Your task to perform on an android device: uninstall "Google Chat" Image 0: 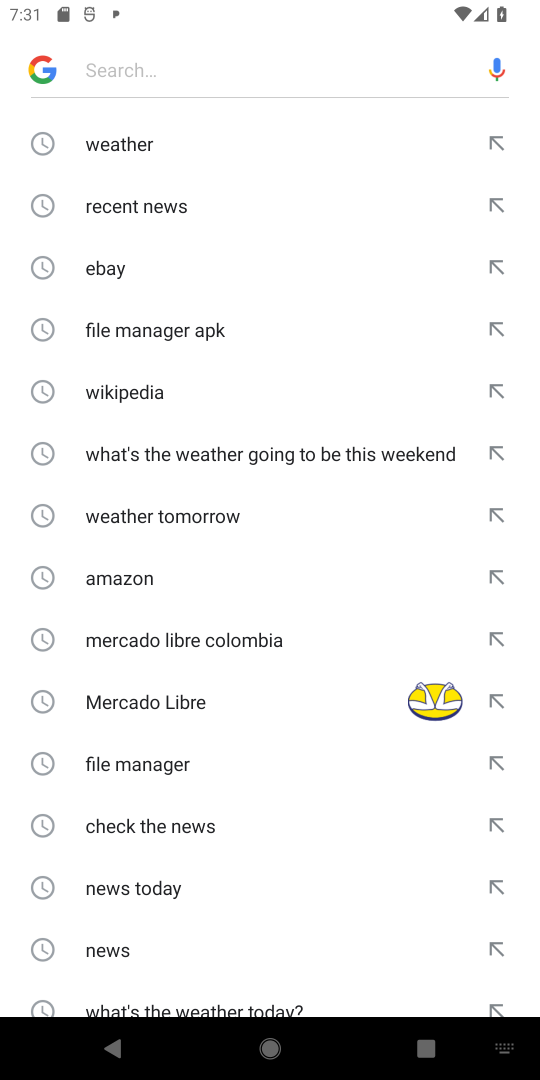
Step 0: press home button
Your task to perform on an android device: uninstall "Google Chat" Image 1: 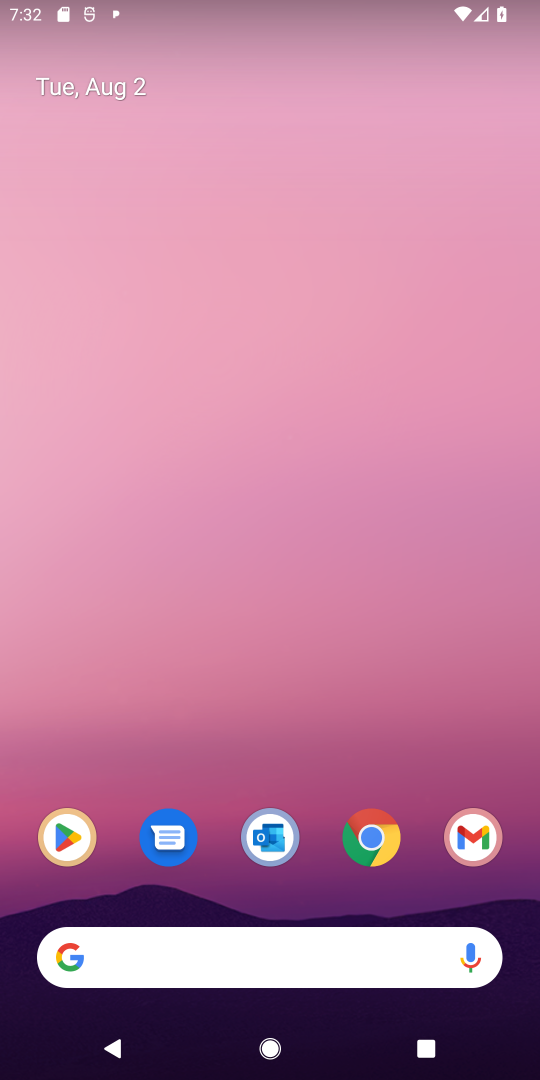
Step 1: click (75, 841)
Your task to perform on an android device: uninstall "Google Chat" Image 2: 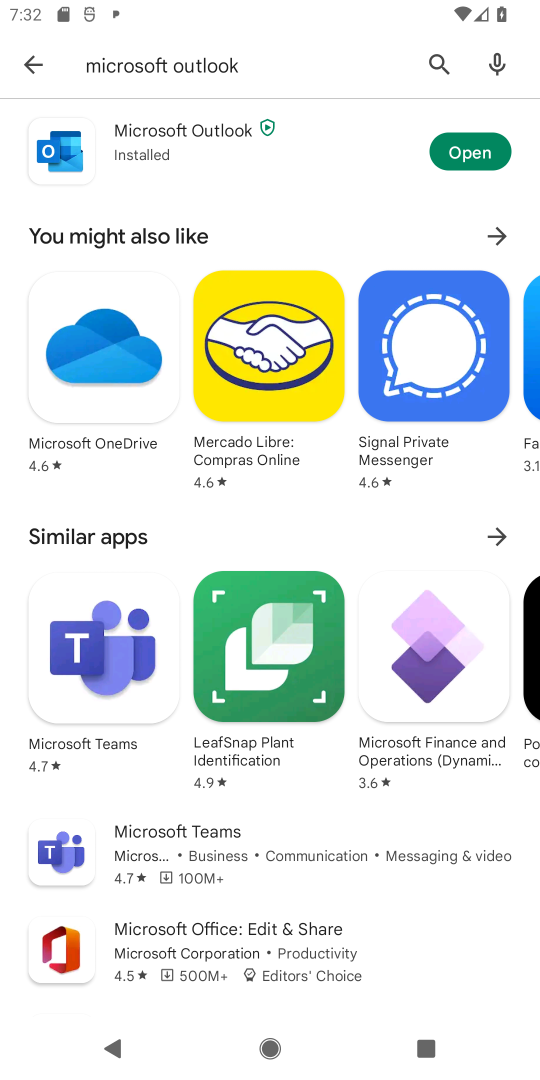
Step 2: click (427, 61)
Your task to perform on an android device: uninstall "Google Chat" Image 3: 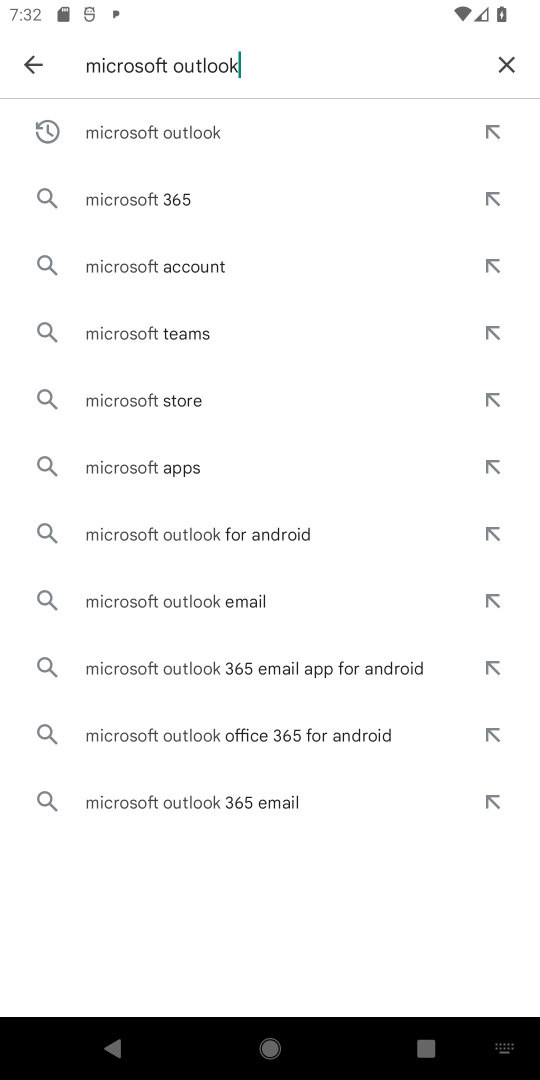
Step 3: click (503, 58)
Your task to perform on an android device: uninstall "Google Chat" Image 4: 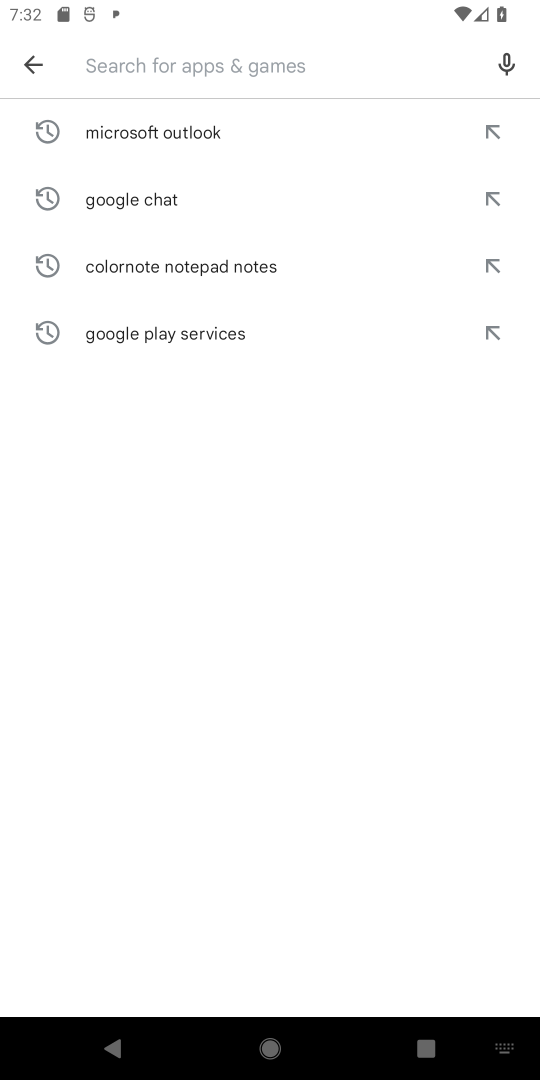
Step 4: type "Google Chat"
Your task to perform on an android device: uninstall "Google Chat" Image 5: 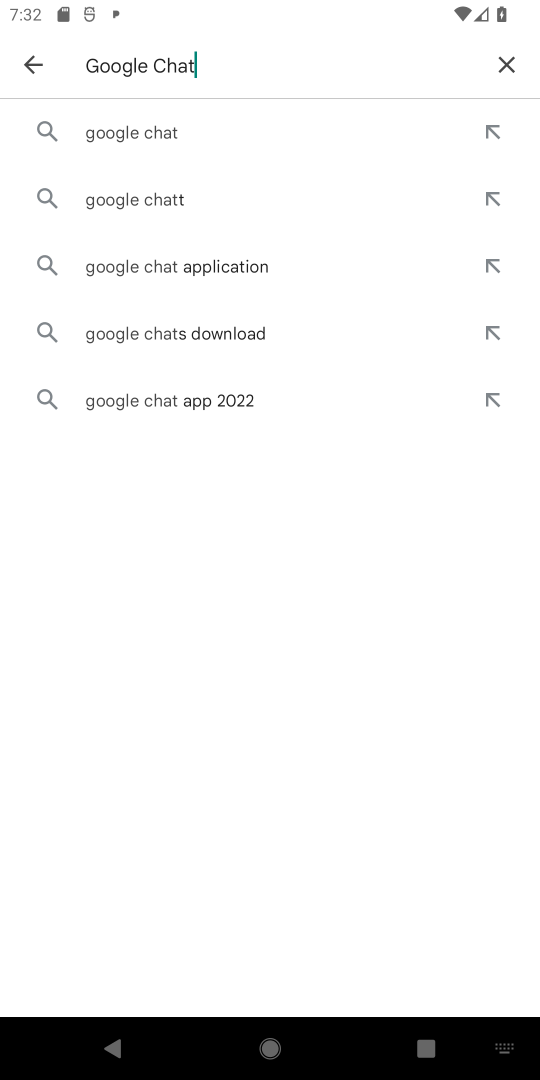
Step 5: click (173, 140)
Your task to perform on an android device: uninstall "Google Chat" Image 6: 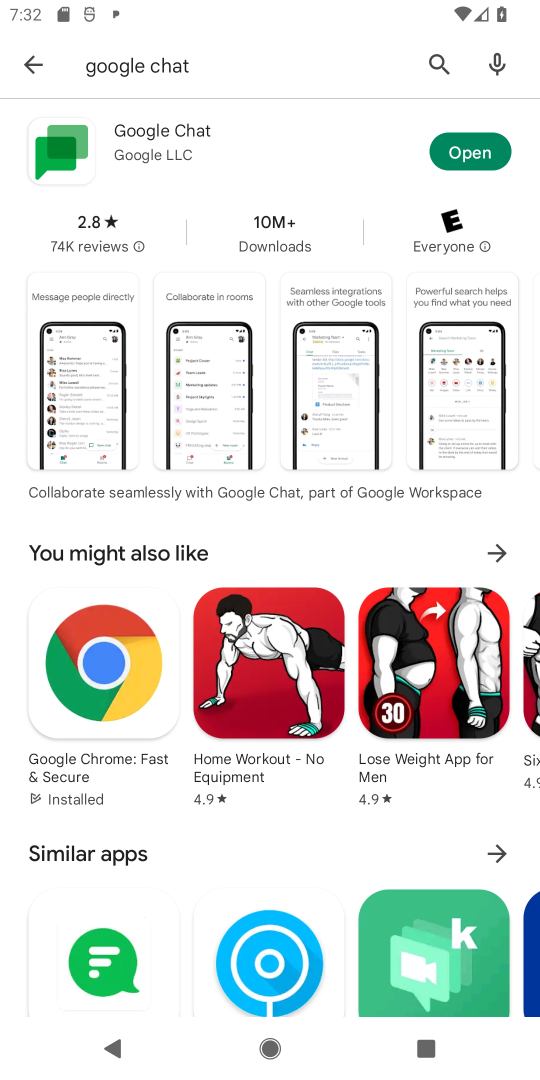
Step 6: click (110, 136)
Your task to perform on an android device: uninstall "Google Chat" Image 7: 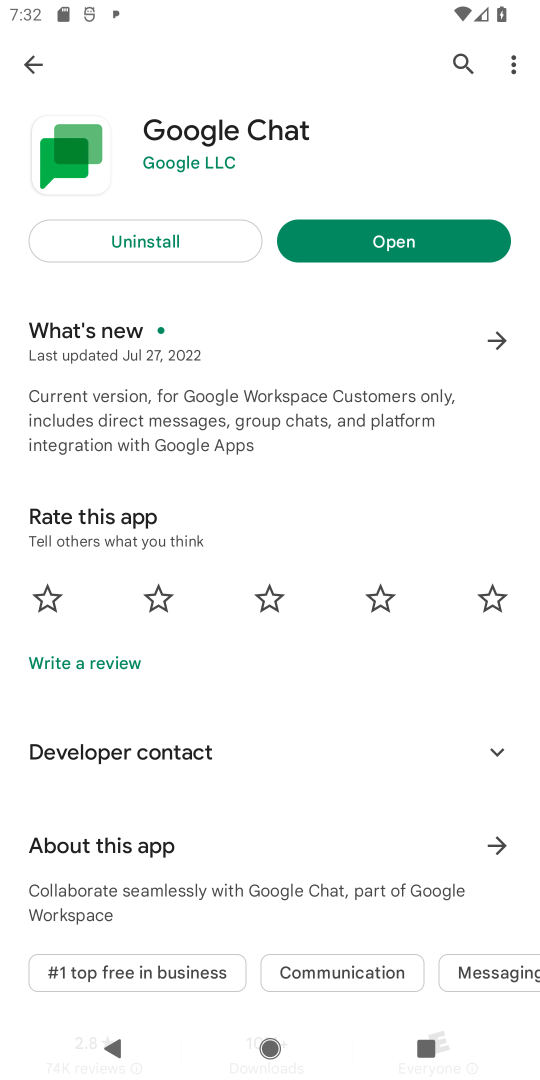
Step 7: click (153, 251)
Your task to perform on an android device: uninstall "Google Chat" Image 8: 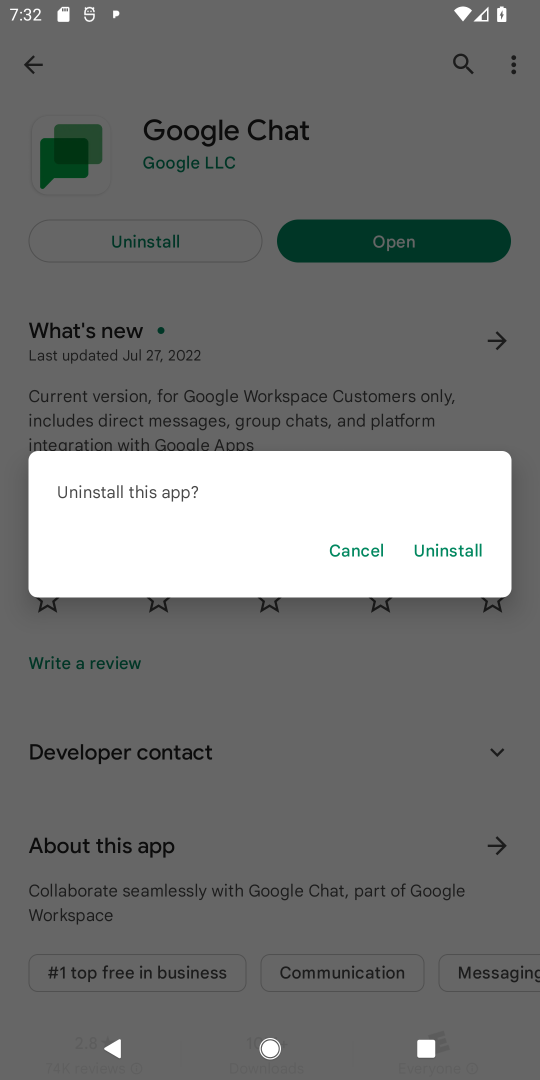
Step 8: click (448, 537)
Your task to perform on an android device: uninstall "Google Chat" Image 9: 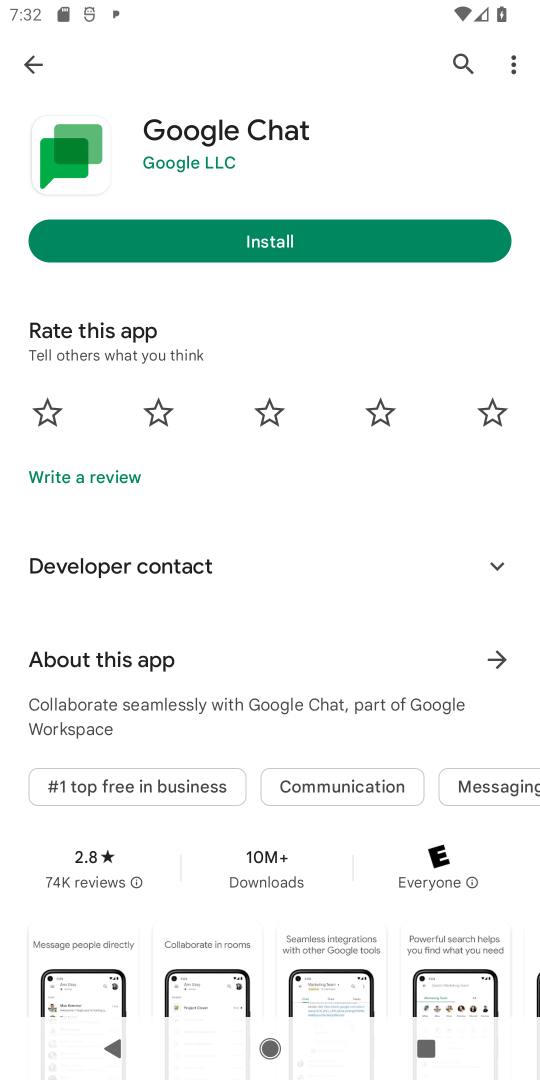
Step 9: task complete